Your task to perform on an android device: change the clock style Image 0: 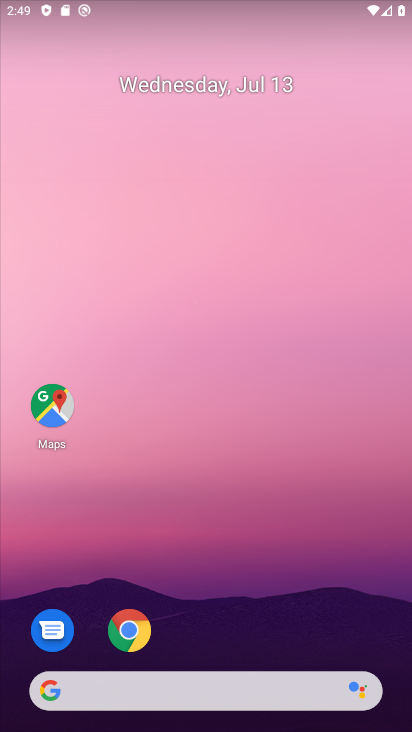
Step 0: drag from (289, 284) to (333, 2)
Your task to perform on an android device: change the clock style Image 1: 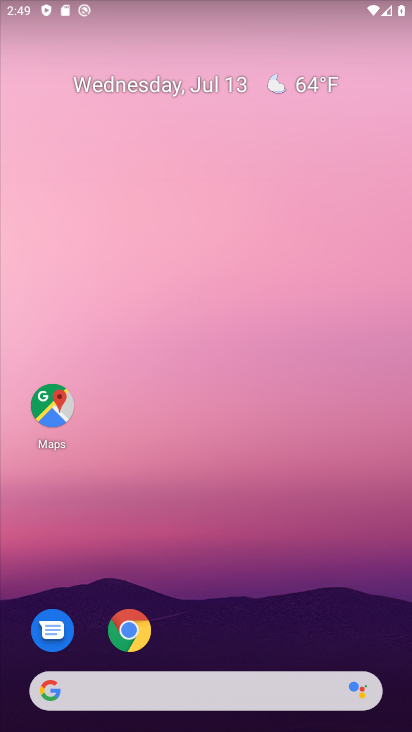
Step 1: drag from (290, 591) to (294, 9)
Your task to perform on an android device: change the clock style Image 2: 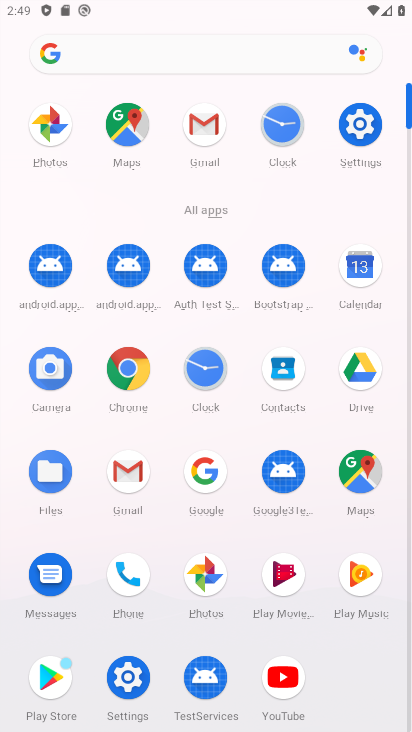
Step 2: click (276, 135)
Your task to perform on an android device: change the clock style Image 3: 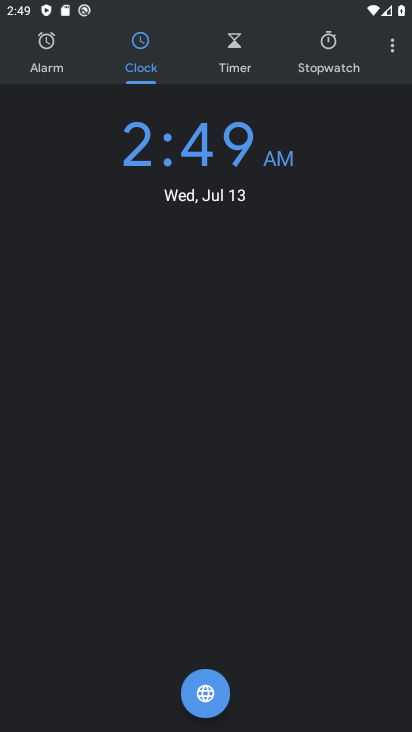
Step 3: click (381, 52)
Your task to perform on an android device: change the clock style Image 4: 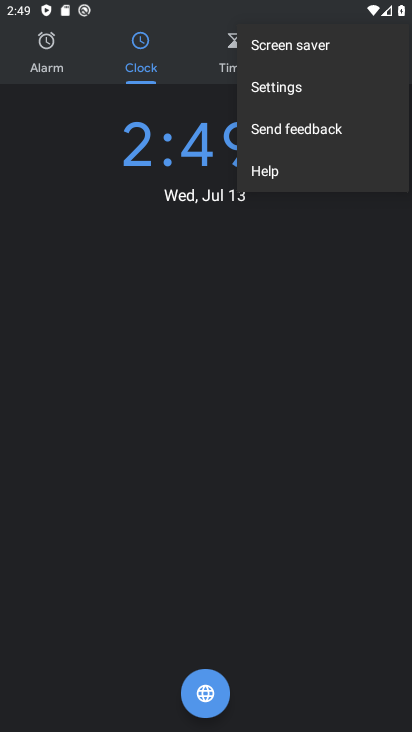
Step 4: click (287, 94)
Your task to perform on an android device: change the clock style Image 5: 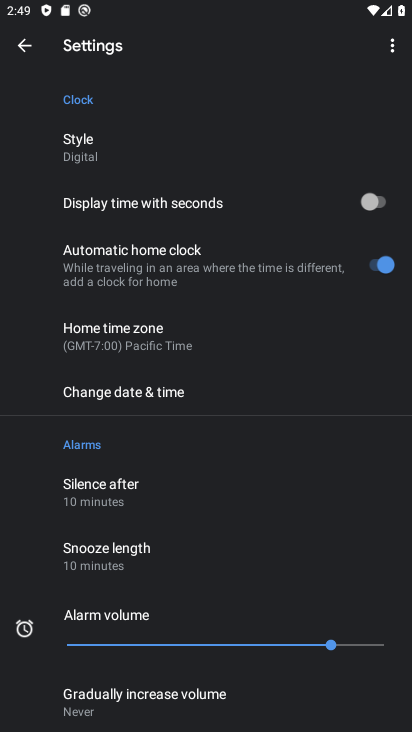
Step 5: click (105, 158)
Your task to perform on an android device: change the clock style Image 6: 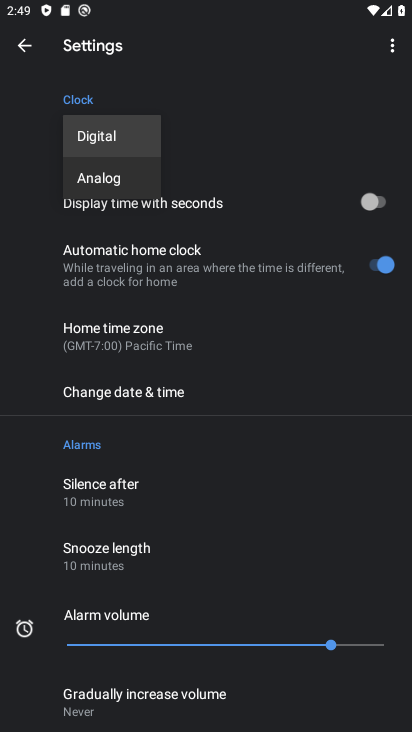
Step 6: click (130, 170)
Your task to perform on an android device: change the clock style Image 7: 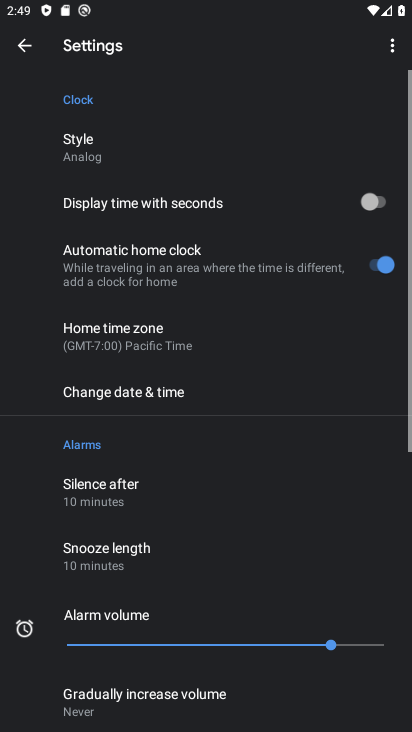
Step 7: task complete